Your task to perform on an android device: Open Chrome and go to settings Image 0: 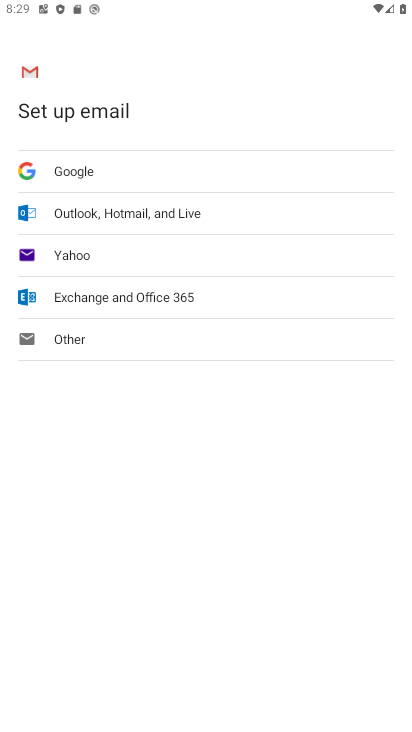
Step 0: press home button
Your task to perform on an android device: Open Chrome and go to settings Image 1: 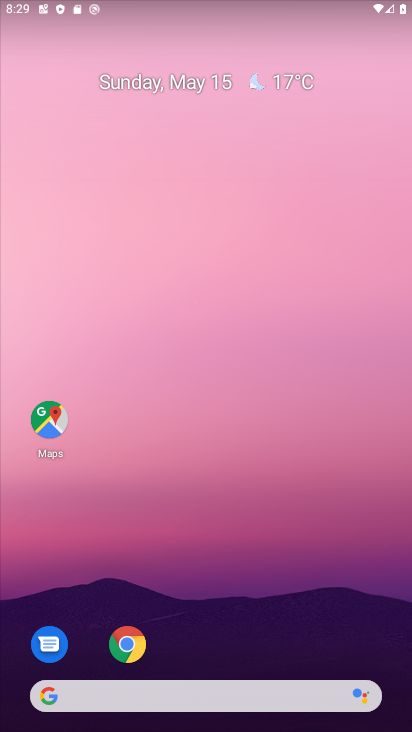
Step 1: drag from (214, 721) to (288, 244)
Your task to perform on an android device: Open Chrome and go to settings Image 2: 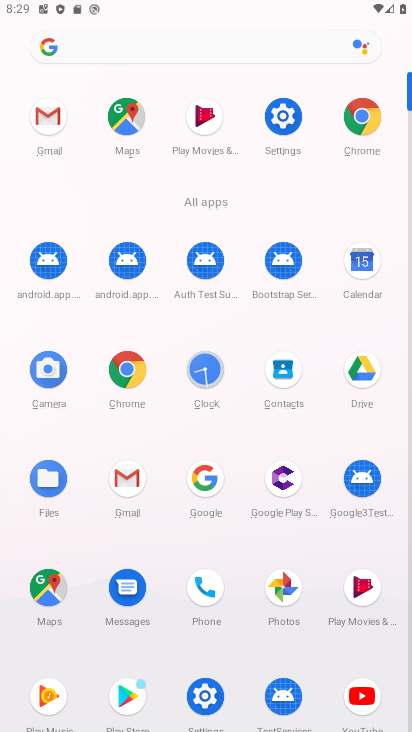
Step 2: click (365, 111)
Your task to perform on an android device: Open Chrome and go to settings Image 3: 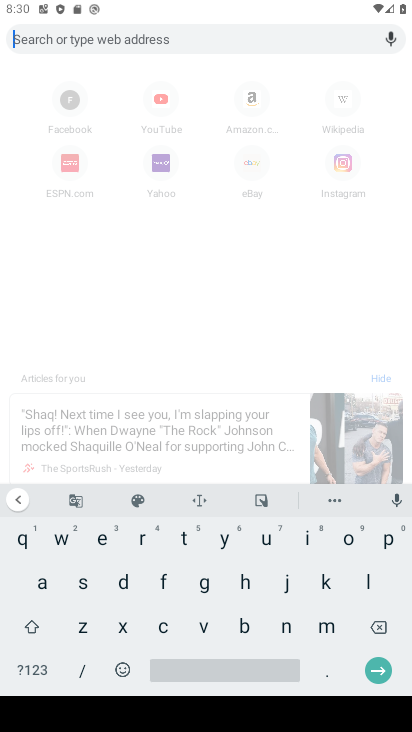
Step 3: press back button
Your task to perform on an android device: Open Chrome and go to settings Image 4: 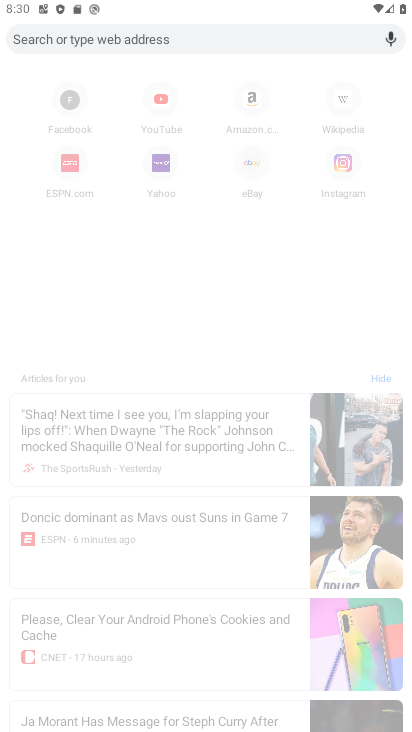
Step 4: press back button
Your task to perform on an android device: Open Chrome and go to settings Image 5: 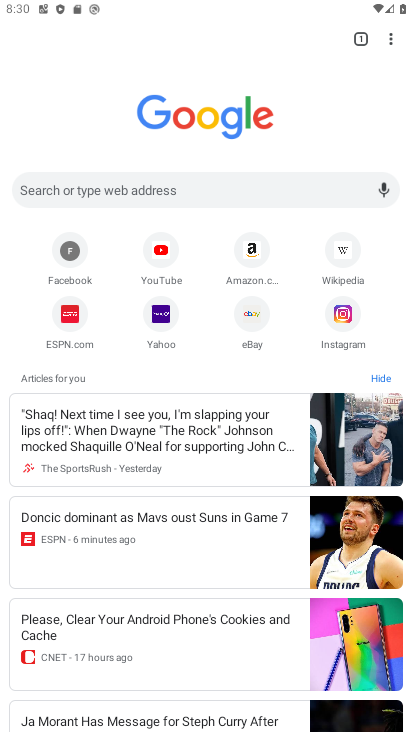
Step 5: click (388, 49)
Your task to perform on an android device: Open Chrome and go to settings Image 6: 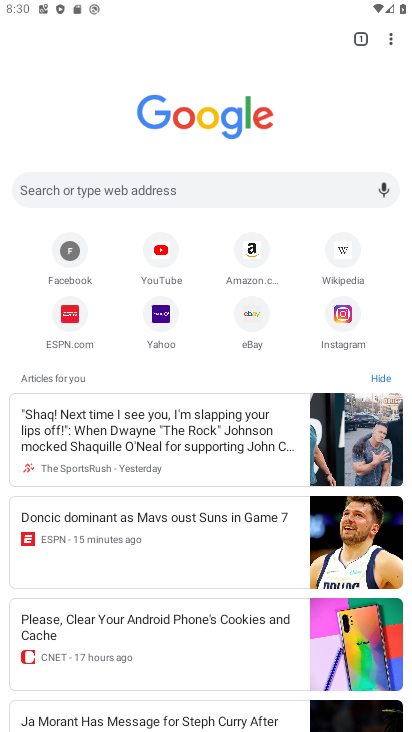
Step 6: click (384, 49)
Your task to perform on an android device: Open Chrome and go to settings Image 7: 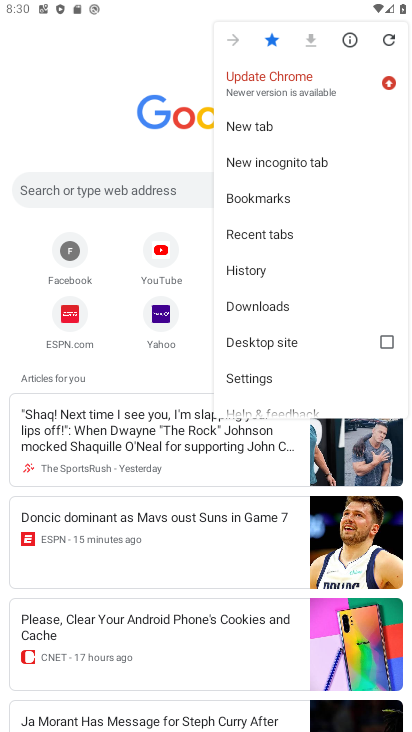
Step 7: click (249, 376)
Your task to perform on an android device: Open Chrome and go to settings Image 8: 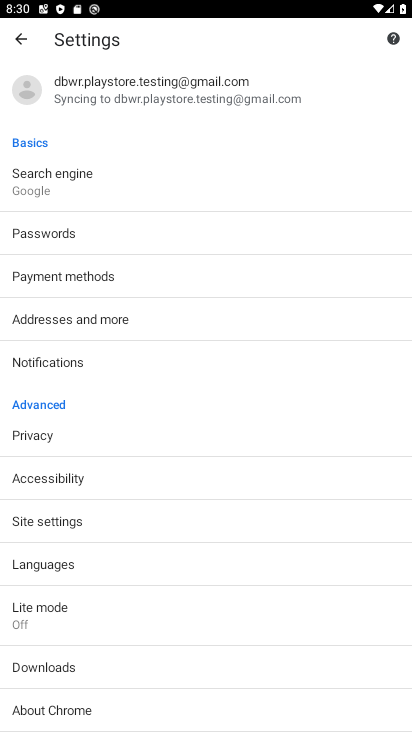
Step 8: task complete